Your task to perform on an android device: change alarm snooze length Image 0: 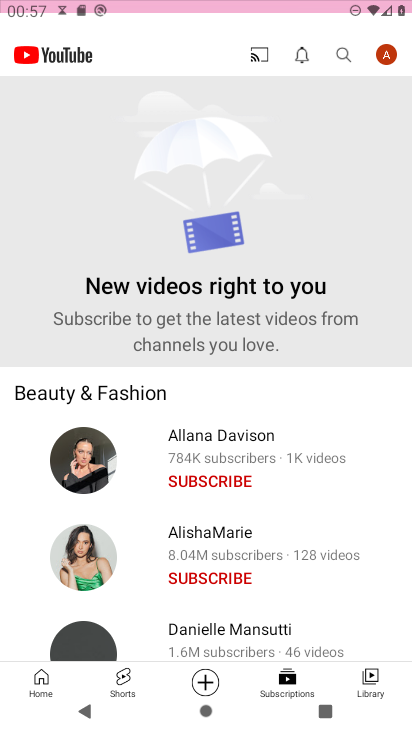
Step 0: press home button
Your task to perform on an android device: change alarm snooze length Image 1: 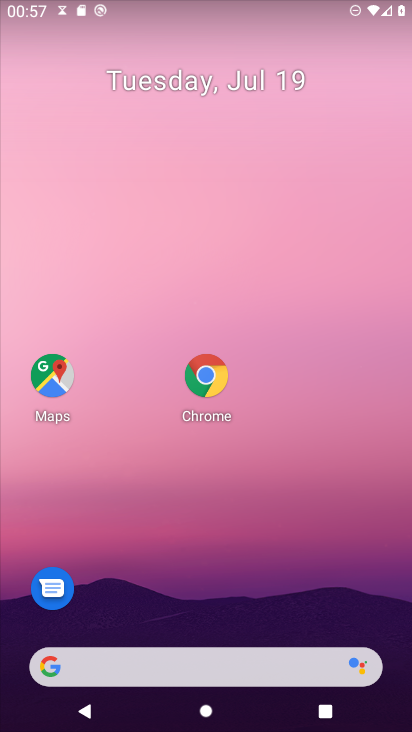
Step 1: drag from (334, 543) to (272, 49)
Your task to perform on an android device: change alarm snooze length Image 2: 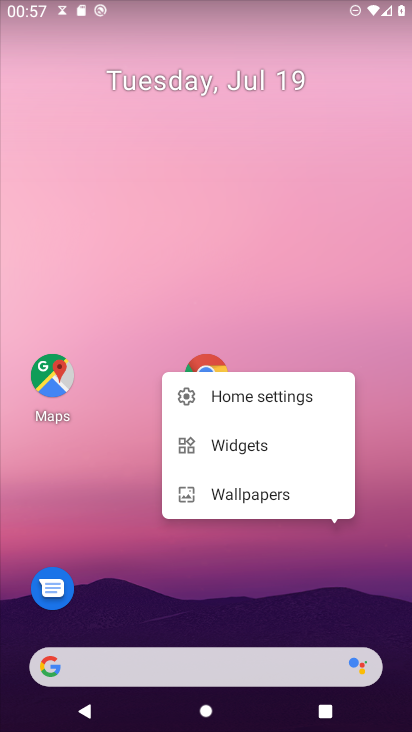
Step 2: drag from (359, 554) to (386, 55)
Your task to perform on an android device: change alarm snooze length Image 3: 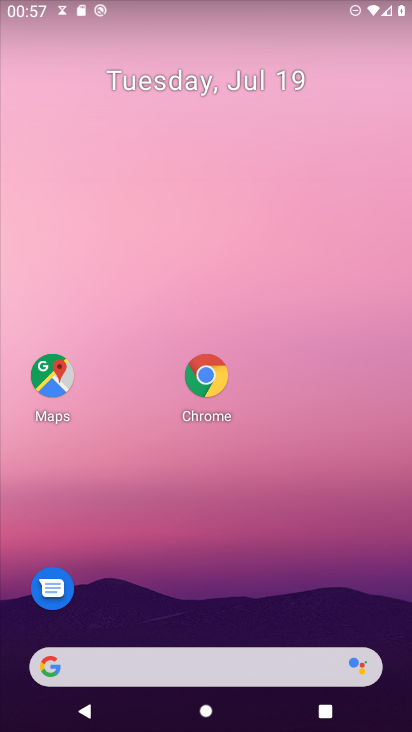
Step 3: drag from (183, 543) to (176, 44)
Your task to perform on an android device: change alarm snooze length Image 4: 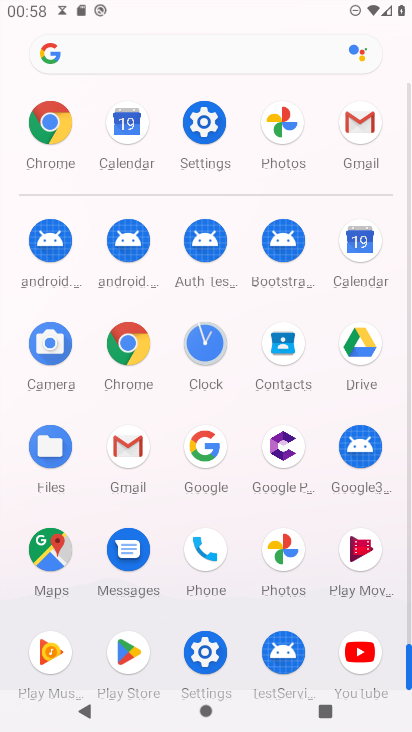
Step 4: click (212, 345)
Your task to perform on an android device: change alarm snooze length Image 5: 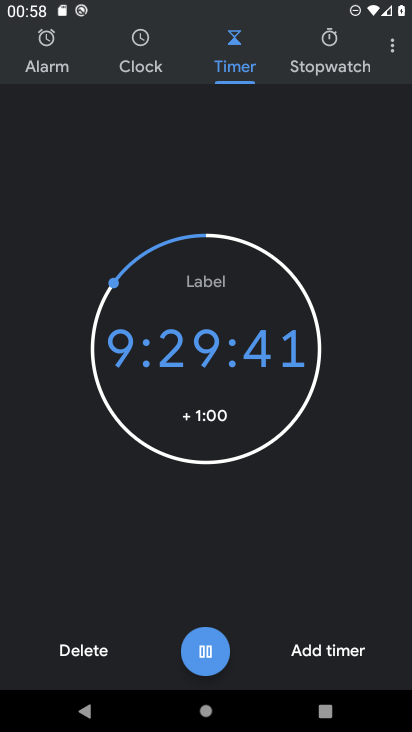
Step 5: click (395, 42)
Your task to perform on an android device: change alarm snooze length Image 6: 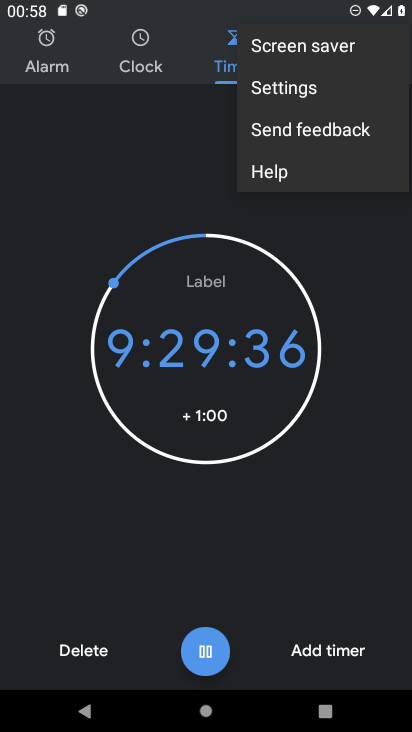
Step 6: click (307, 90)
Your task to perform on an android device: change alarm snooze length Image 7: 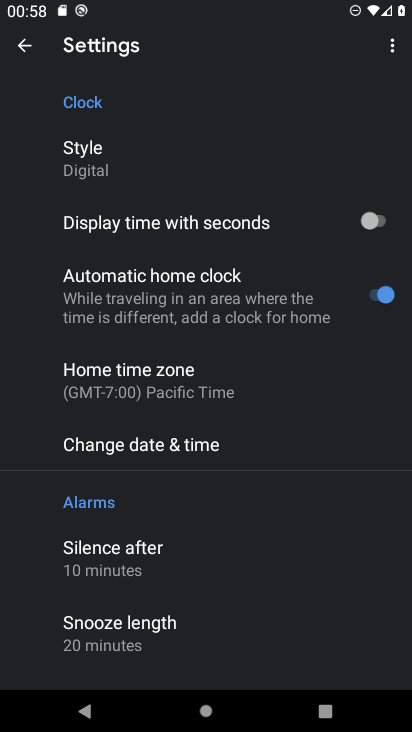
Step 7: click (126, 630)
Your task to perform on an android device: change alarm snooze length Image 8: 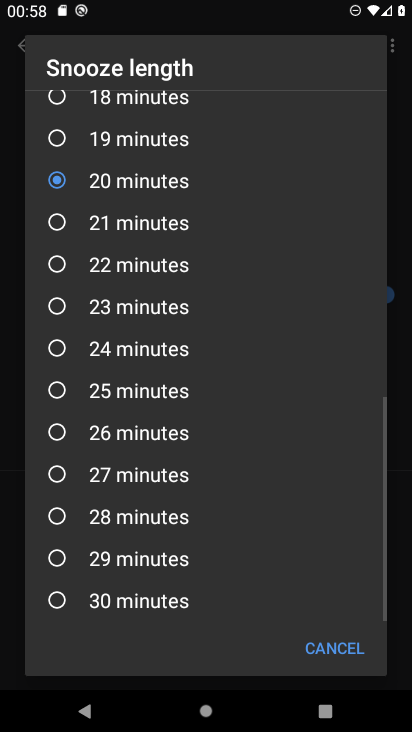
Step 8: click (59, 101)
Your task to perform on an android device: change alarm snooze length Image 9: 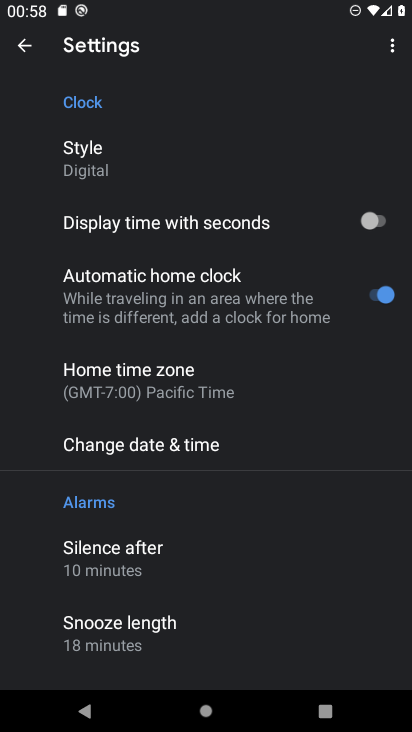
Step 9: task complete